Your task to perform on an android device: turn on improve location accuracy Image 0: 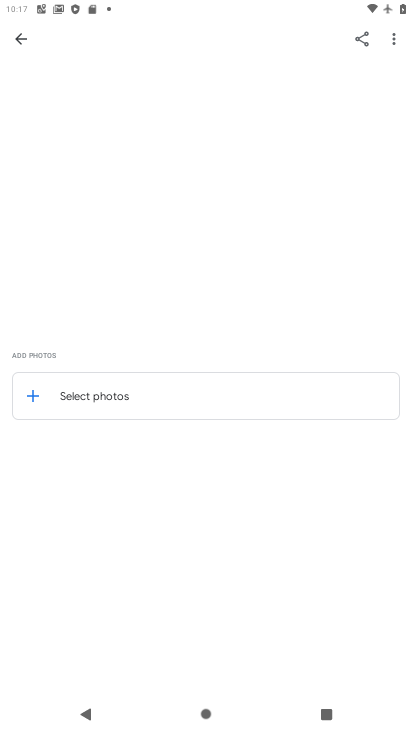
Step 0: press home button
Your task to perform on an android device: turn on improve location accuracy Image 1: 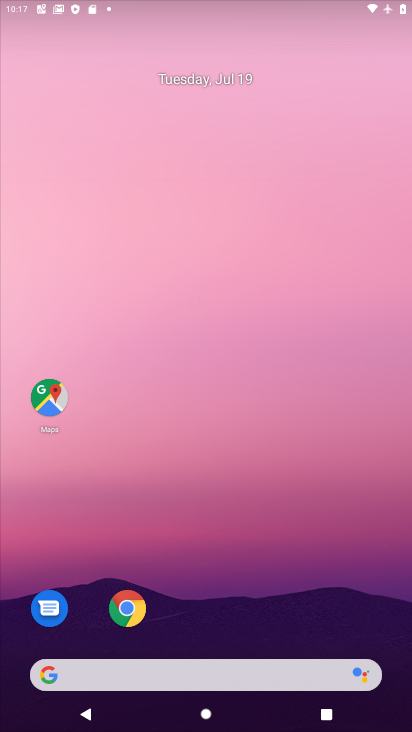
Step 1: drag from (308, 517) to (288, 39)
Your task to perform on an android device: turn on improve location accuracy Image 2: 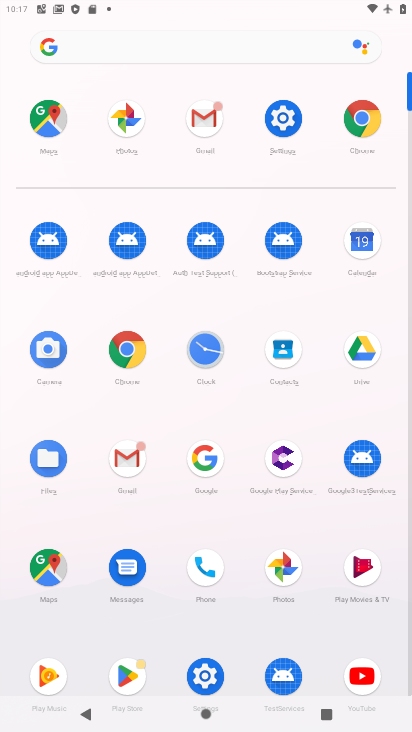
Step 2: click (273, 119)
Your task to perform on an android device: turn on improve location accuracy Image 3: 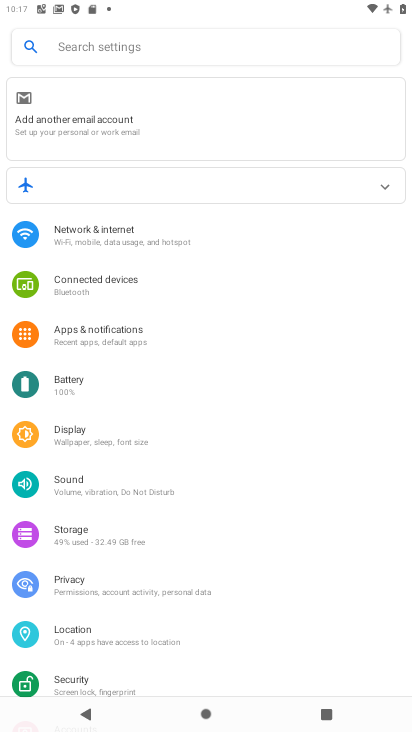
Step 3: click (87, 625)
Your task to perform on an android device: turn on improve location accuracy Image 4: 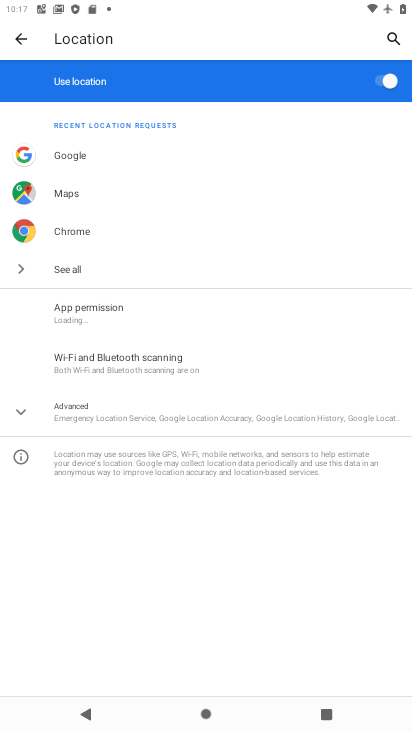
Step 4: click (133, 416)
Your task to perform on an android device: turn on improve location accuracy Image 5: 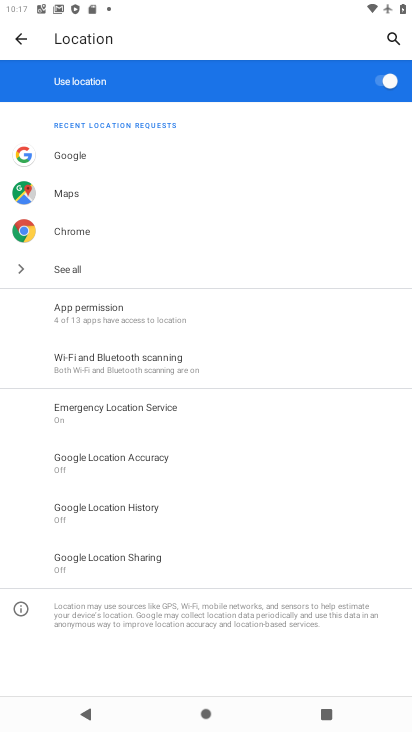
Step 5: click (123, 463)
Your task to perform on an android device: turn on improve location accuracy Image 6: 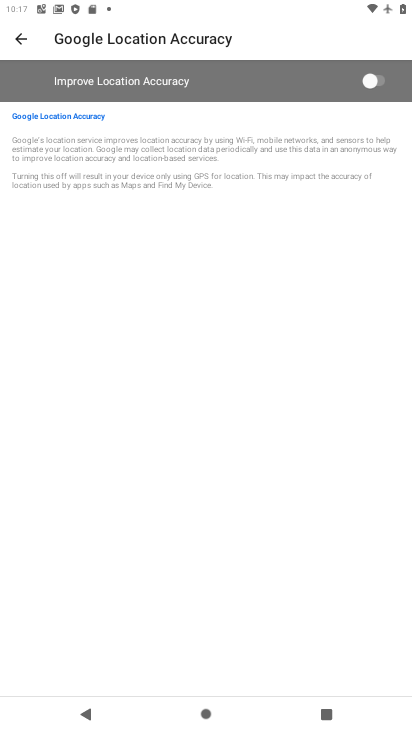
Step 6: click (380, 83)
Your task to perform on an android device: turn on improve location accuracy Image 7: 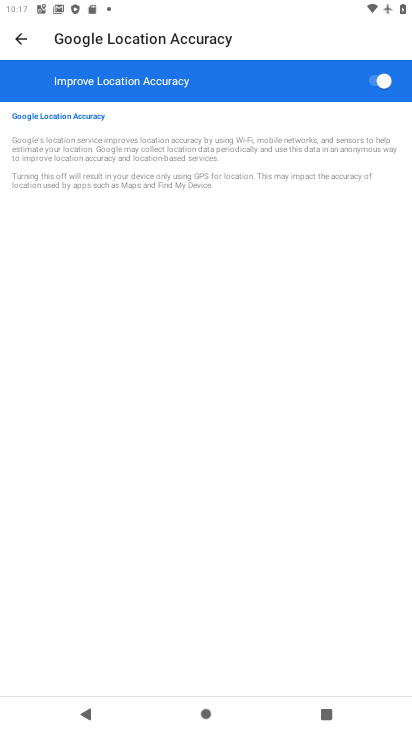
Step 7: task complete